Your task to perform on an android device: Go to Yahoo.com Image 0: 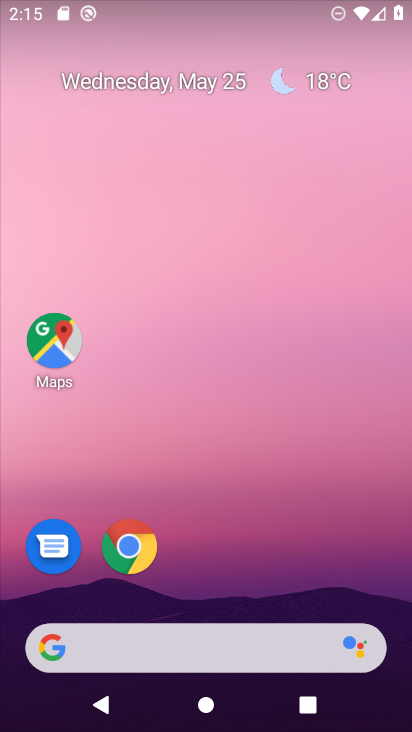
Step 0: click (137, 553)
Your task to perform on an android device: Go to Yahoo.com Image 1: 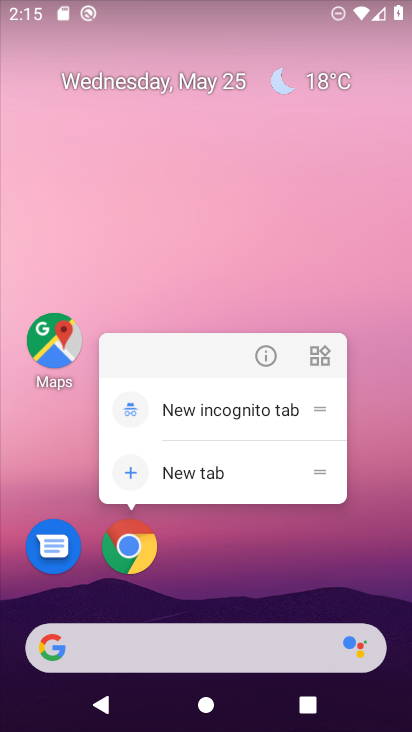
Step 1: click (146, 554)
Your task to perform on an android device: Go to Yahoo.com Image 2: 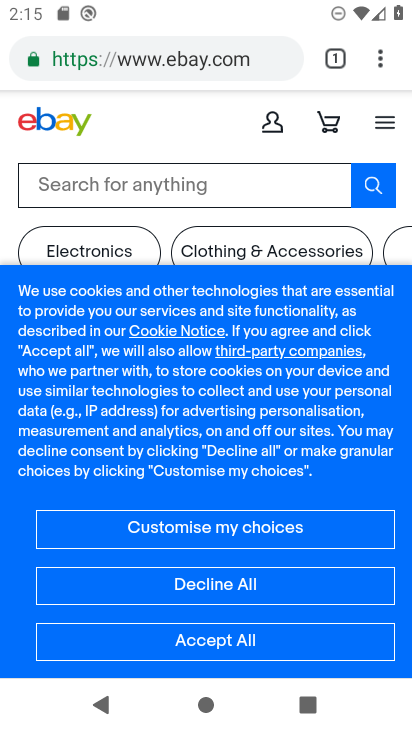
Step 2: click (188, 53)
Your task to perform on an android device: Go to Yahoo.com Image 3: 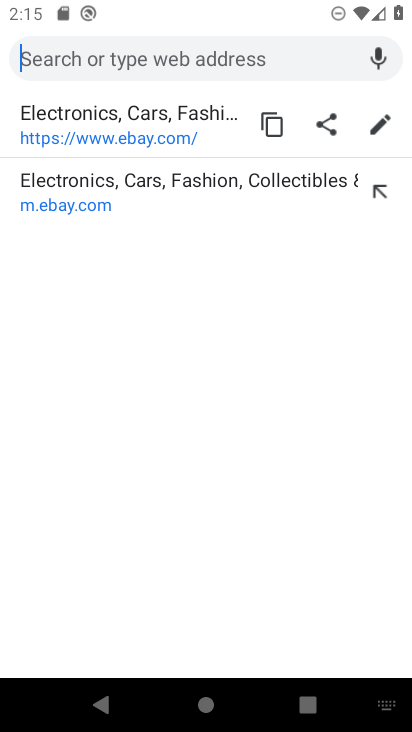
Step 3: type "yahoo.com"
Your task to perform on an android device: Go to Yahoo.com Image 4: 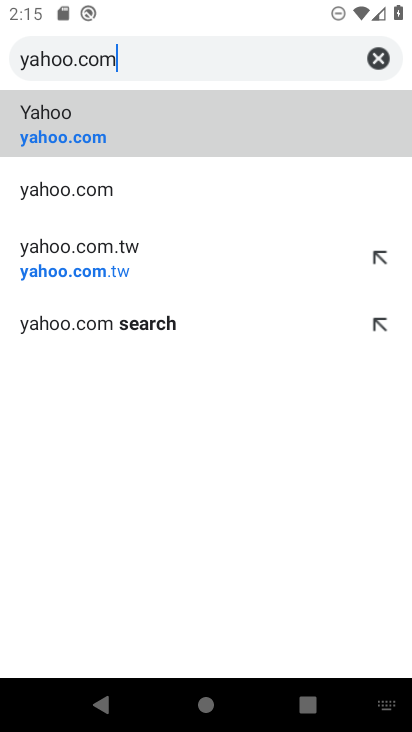
Step 4: click (84, 135)
Your task to perform on an android device: Go to Yahoo.com Image 5: 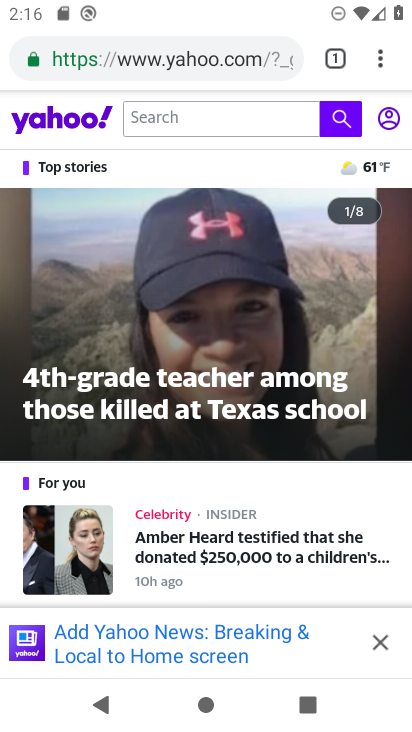
Step 5: task complete